Your task to perform on an android device: change the clock style Image 0: 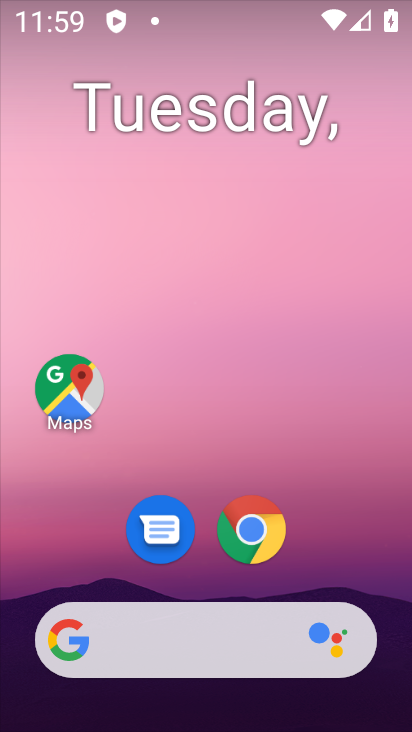
Step 0: drag from (210, 601) to (103, 45)
Your task to perform on an android device: change the clock style Image 1: 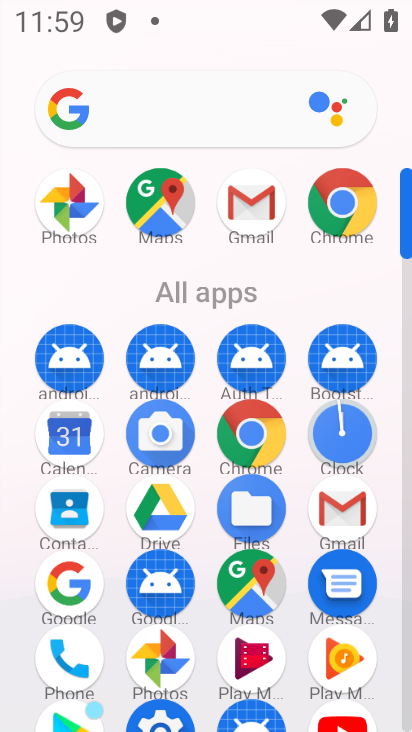
Step 1: click (346, 439)
Your task to perform on an android device: change the clock style Image 2: 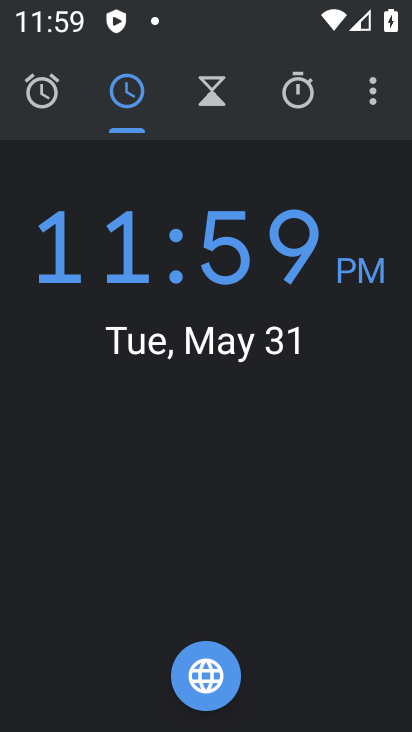
Step 2: click (373, 88)
Your task to perform on an android device: change the clock style Image 3: 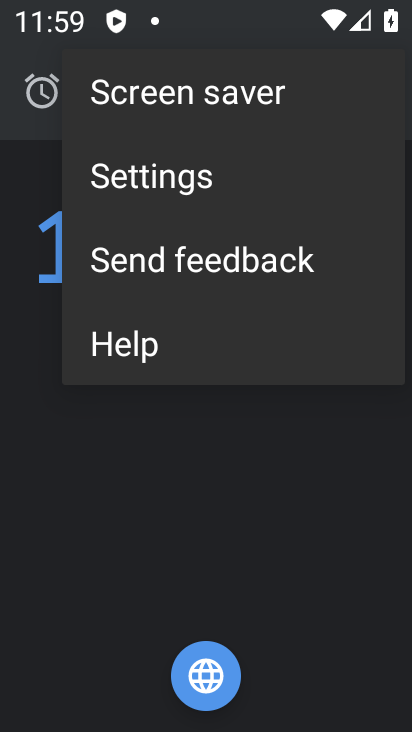
Step 3: click (184, 157)
Your task to perform on an android device: change the clock style Image 4: 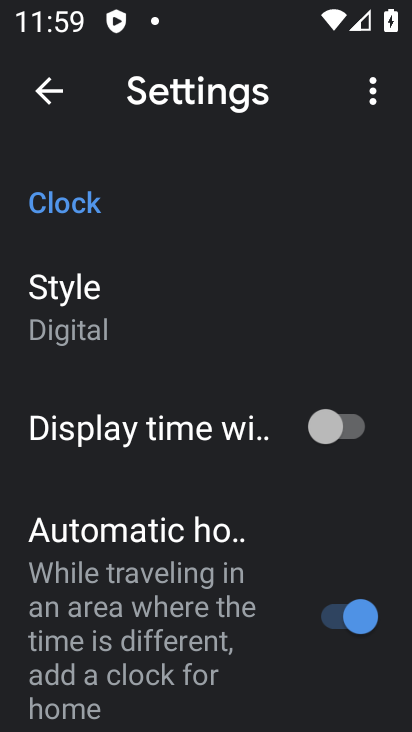
Step 4: click (105, 318)
Your task to perform on an android device: change the clock style Image 5: 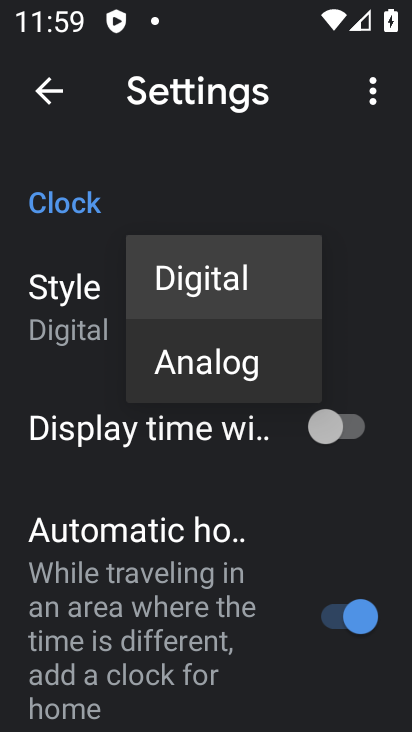
Step 5: click (169, 369)
Your task to perform on an android device: change the clock style Image 6: 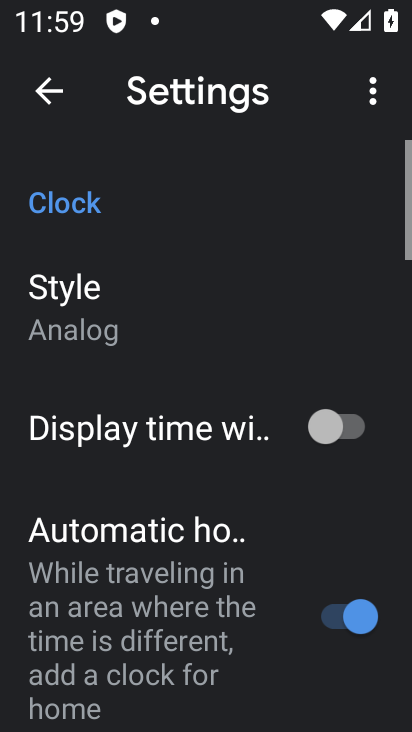
Step 6: task complete